Your task to perform on an android device: Open Amazon Image 0: 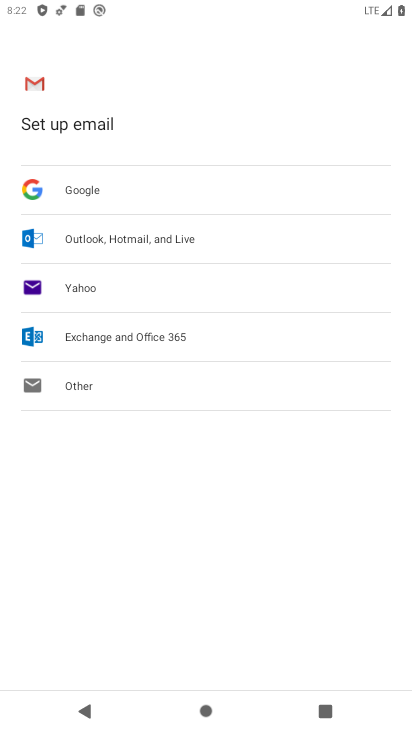
Step 0: press home button
Your task to perform on an android device: Open Amazon Image 1: 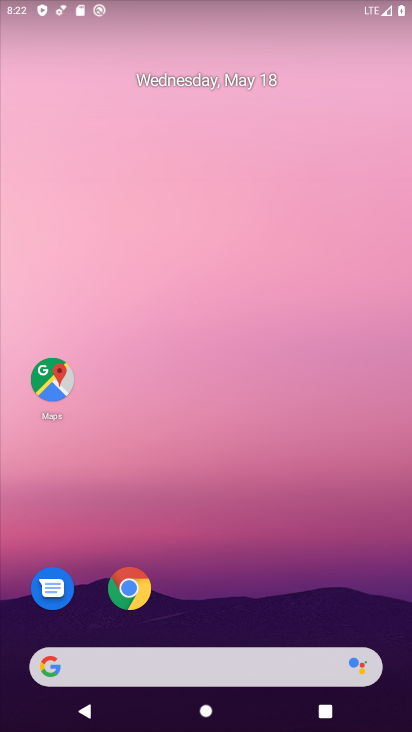
Step 1: click (136, 604)
Your task to perform on an android device: Open Amazon Image 2: 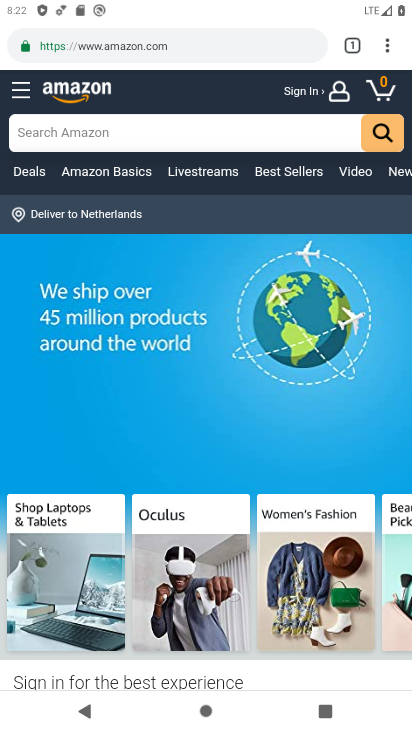
Step 2: task complete